Your task to perform on an android device: Find coffee shops on Maps Image 0: 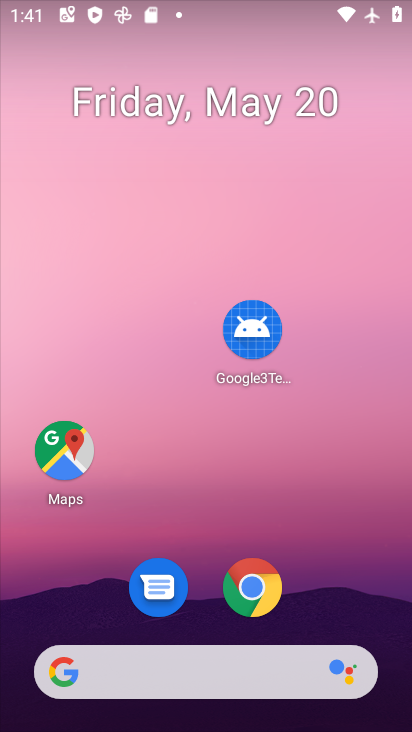
Step 0: click (71, 460)
Your task to perform on an android device: Find coffee shops on Maps Image 1: 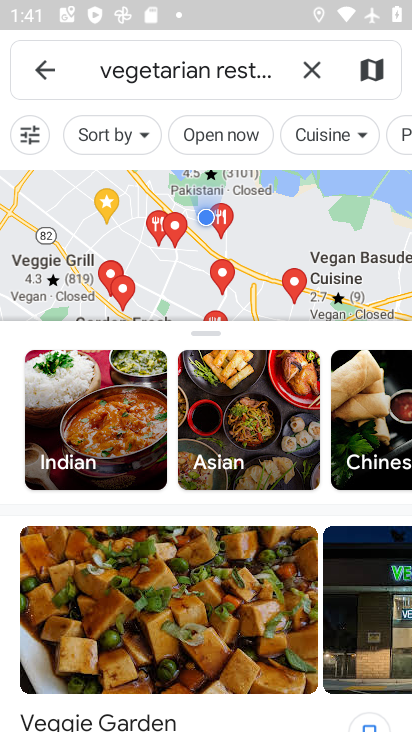
Step 1: click (315, 62)
Your task to perform on an android device: Find coffee shops on Maps Image 2: 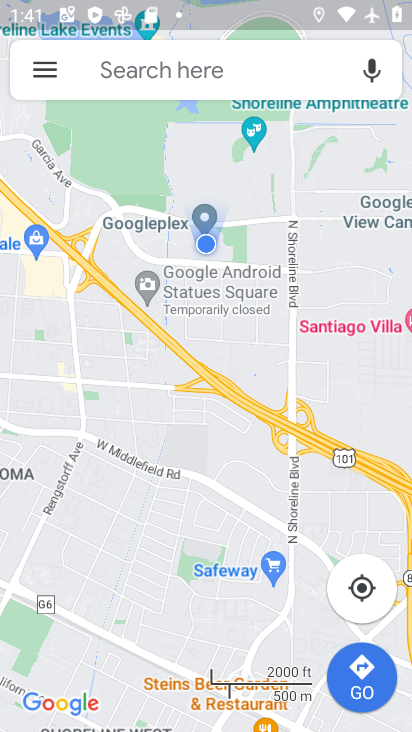
Step 2: click (311, 76)
Your task to perform on an android device: Find coffee shops on Maps Image 3: 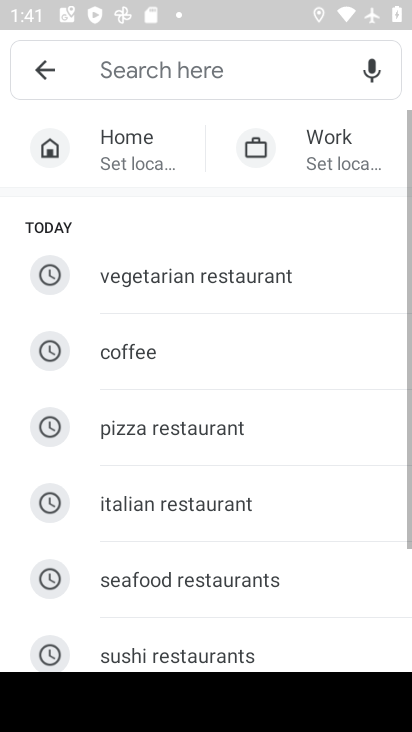
Step 3: click (172, 74)
Your task to perform on an android device: Find coffee shops on Maps Image 4: 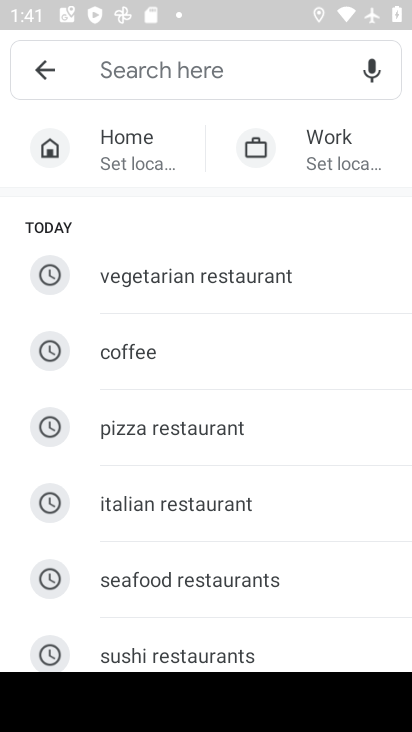
Step 4: click (114, 352)
Your task to perform on an android device: Find coffee shops on Maps Image 5: 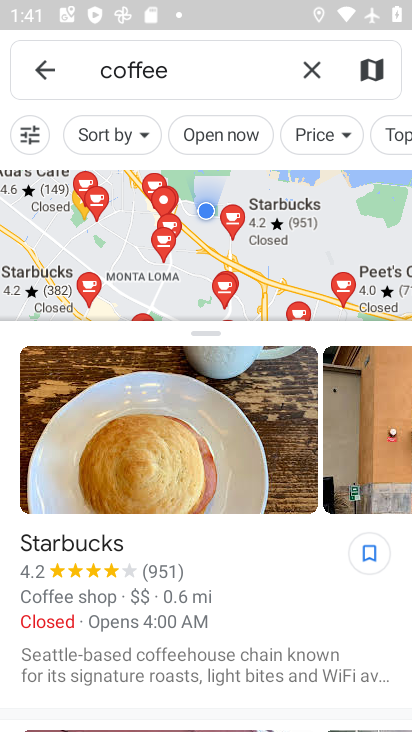
Step 5: task complete